Your task to perform on an android device: refresh tabs in the chrome app Image 0: 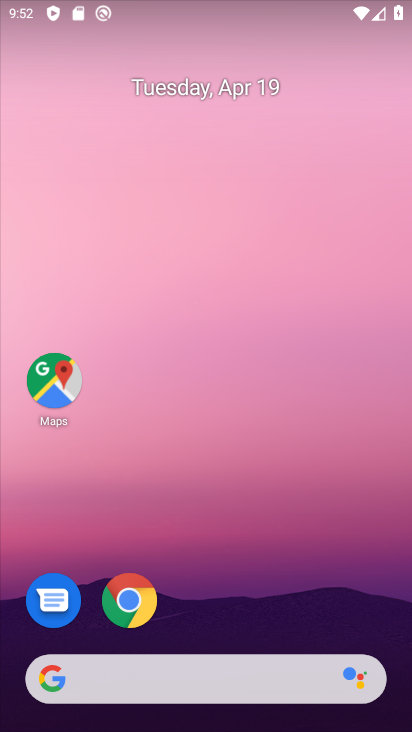
Step 0: drag from (286, 615) to (248, 64)
Your task to perform on an android device: refresh tabs in the chrome app Image 1: 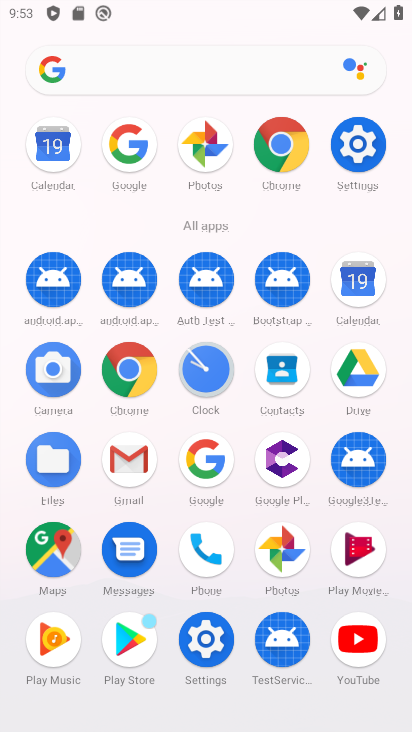
Step 1: click (274, 160)
Your task to perform on an android device: refresh tabs in the chrome app Image 2: 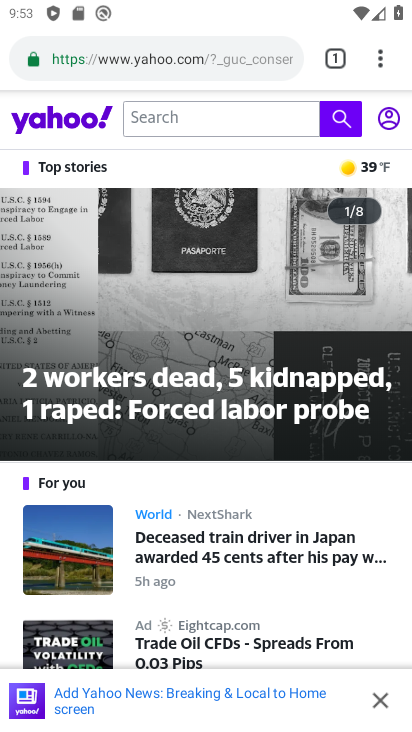
Step 2: press back button
Your task to perform on an android device: refresh tabs in the chrome app Image 3: 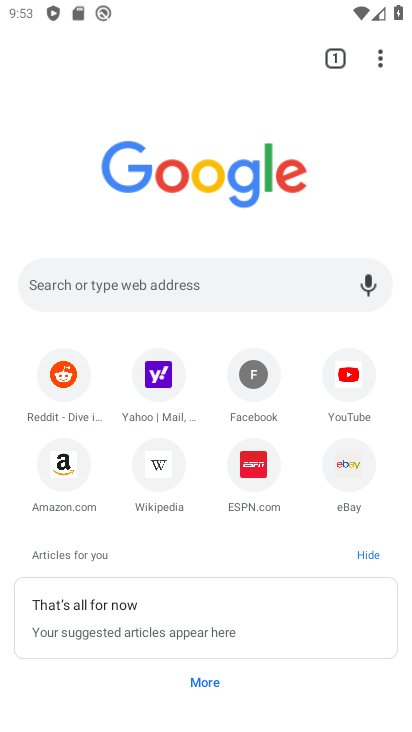
Step 3: click (379, 58)
Your task to perform on an android device: refresh tabs in the chrome app Image 4: 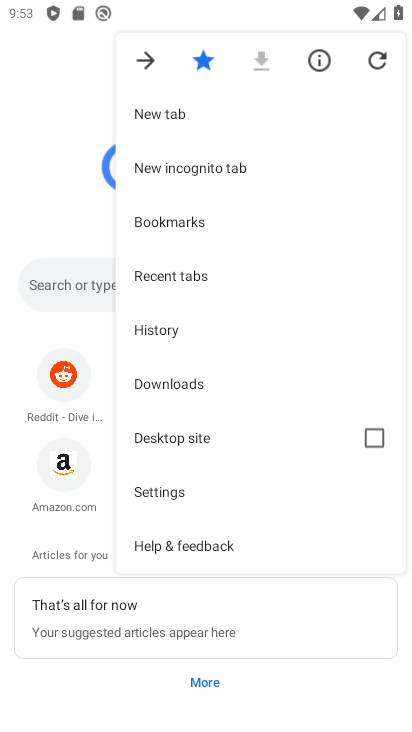
Step 4: click (379, 58)
Your task to perform on an android device: refresh tabs in the chrome app Image 5: 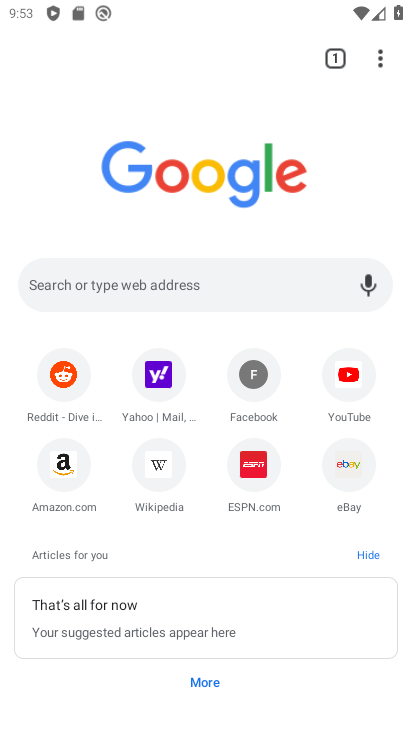
Step 5: task complete